Your task to perform on an android device: Open Youtube and go to "Your channel" Image 0: 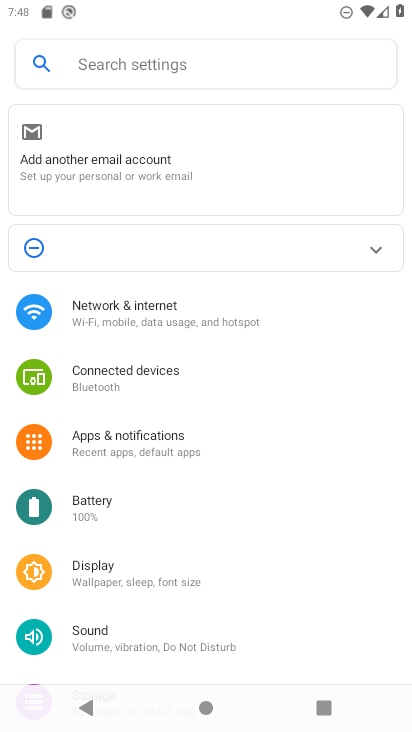
Step 0: press back button
Your task to perform on an android device: Open Youtube and go to "Your channel" Image 1: 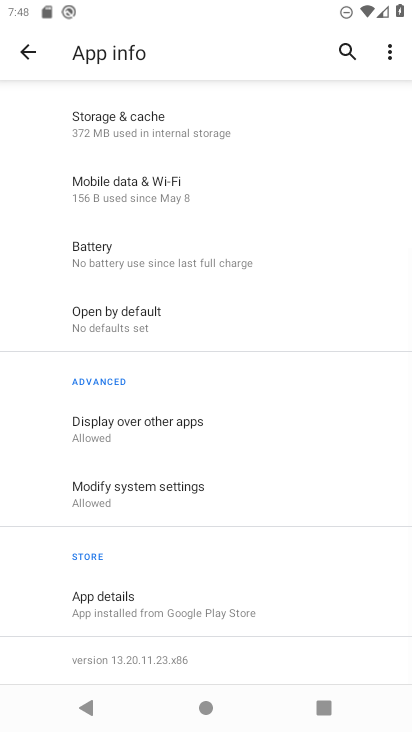
Step 1: press back button
Your task to perform on an android device: Open Youtube and go to "Your channel" Image 2: 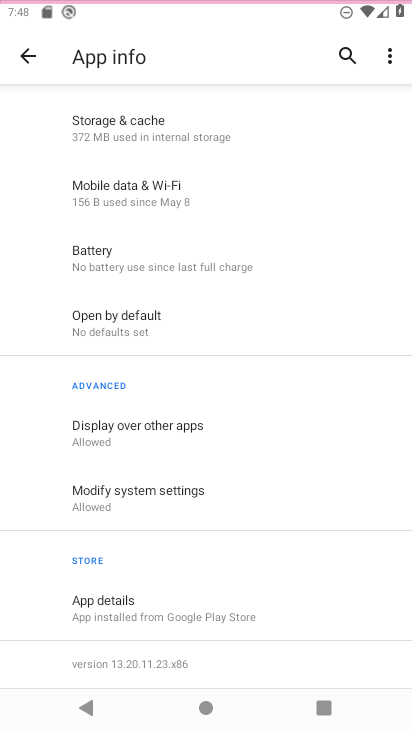
Step 2: press home button
Your task to perform on an android device: Open Youtube and go to "Your channel" Image 3: 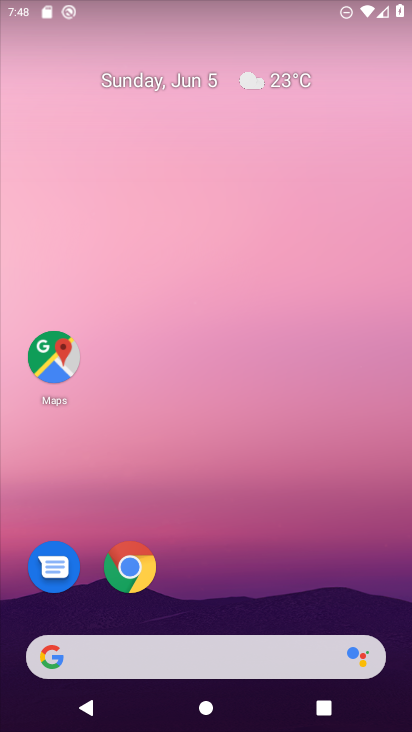
Step 3: drag from (392, 661) to (302, 10)
Your task to perform on an android device: Open Youtube and go to "Your channel" Image 4: 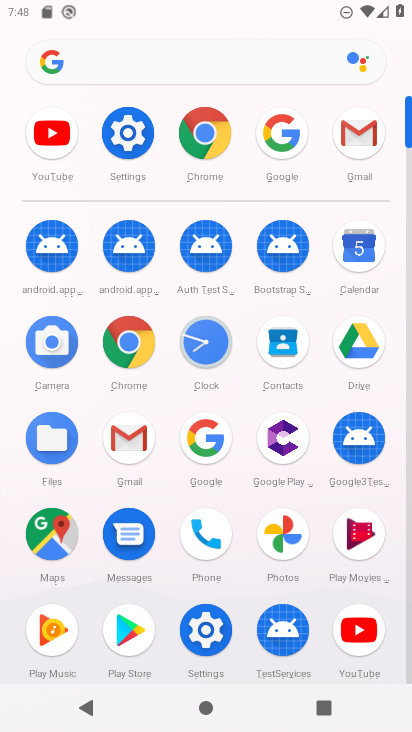
Step 4: click (359, 621)
Your task to perform on an android device: Open Youtube and go to "Your channel" Image 5: 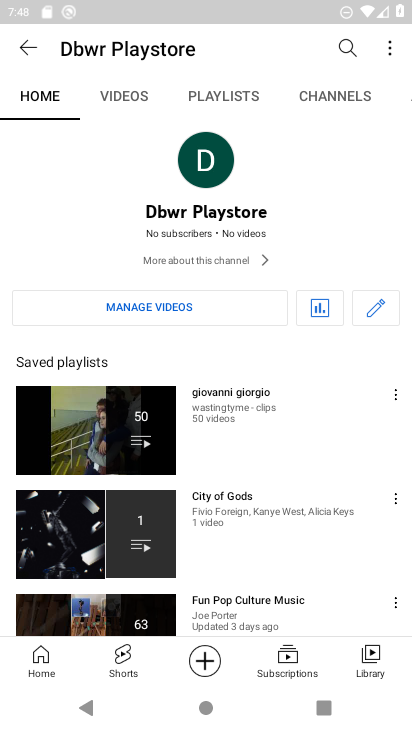
Step 5: task complete